Your task to perform on an android device: Search for vegetarian restaurants on Maps Image 0: 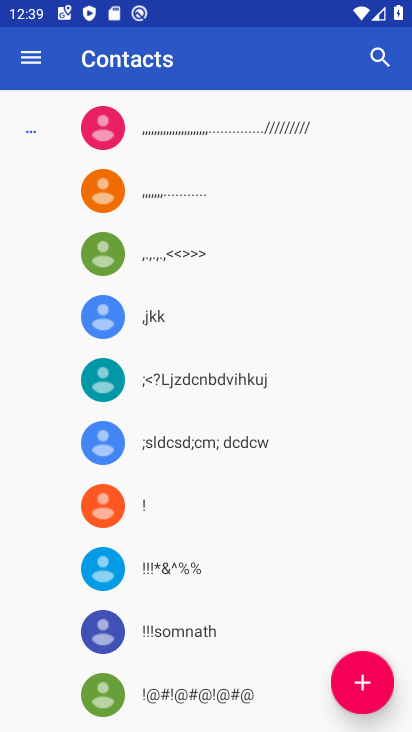
Step 0: press home button
Your task to perform on an android device: Search for vegetarian restaurants on Maps Image 1: 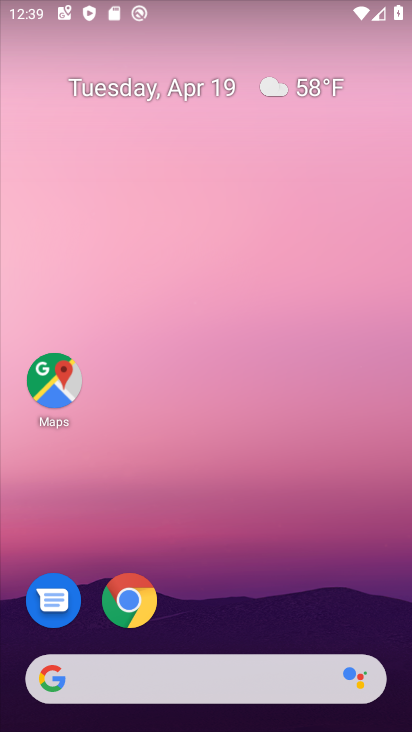
Step 1: click (72, 402)
Your task to perform on an android device: Search for vegetarian restaurants on Maps Image 2: 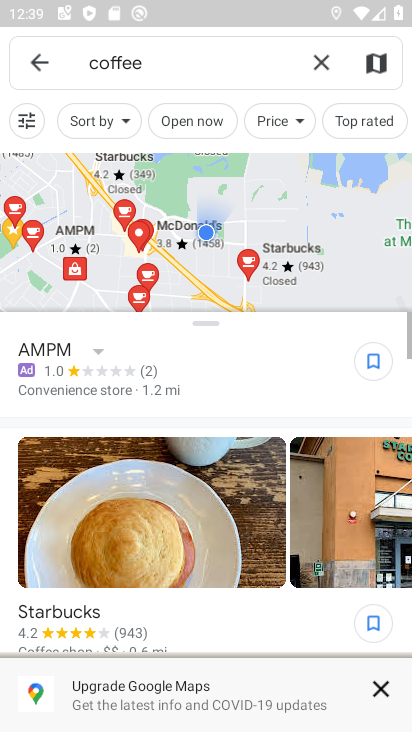
Step 2: click (323, 63)
Your task to perform on an android device: Search for vegetarian restaurants on Maps Image 3: 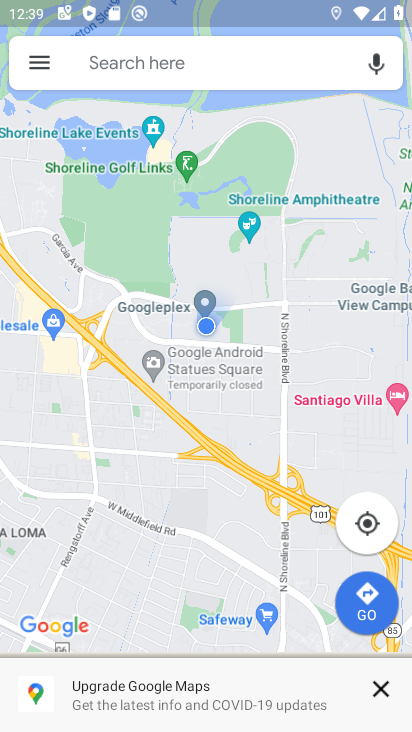
Step 3: click (99, 69)
Your task to perform on an android device: Search for vegetarian restaurants on Maps Image 4: 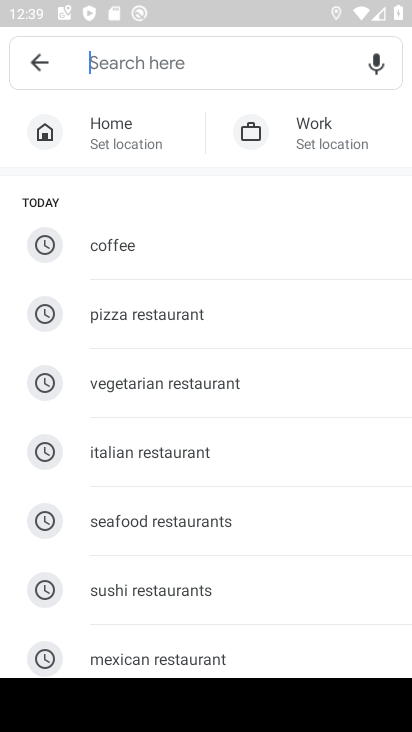
Step 4: type "vegetarian restaurants"
Your task to perform on an android device: Search for vegetarian restaurants on Maps Image 5: 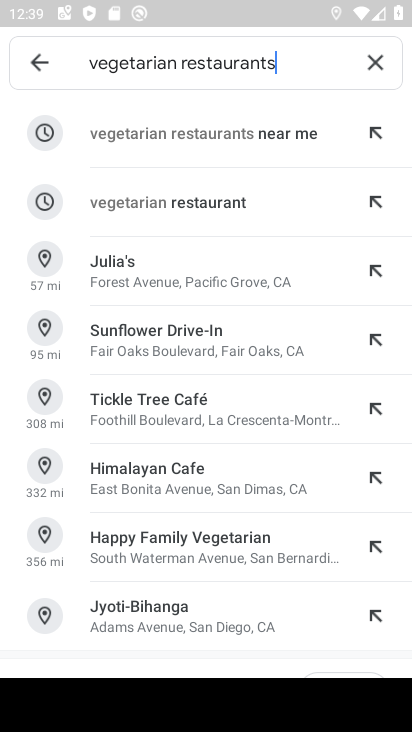
Step 5: click (226, 197)
Your task to perform on an android device: Search for vegetarian restaurants on Maps Image 6: 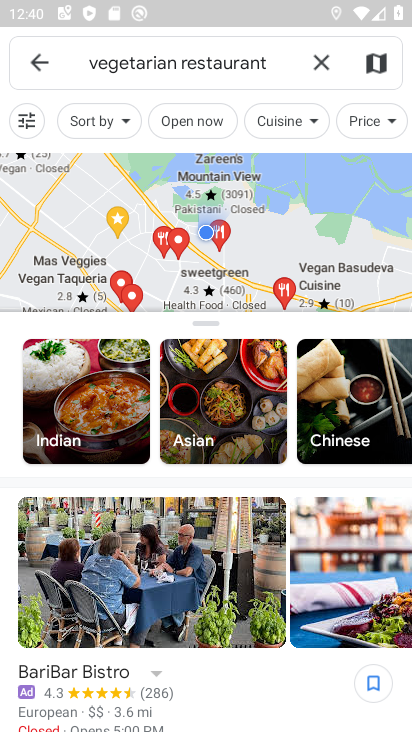
Step 6: task complete